Your task to perform on an android device: Open Google Maps Image 0: 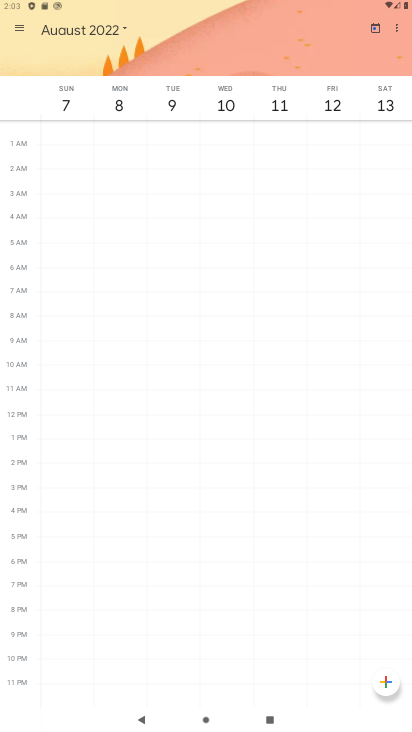
Step 0: press home button
Your task to perform on an android device: Open Google Maps Image 1: 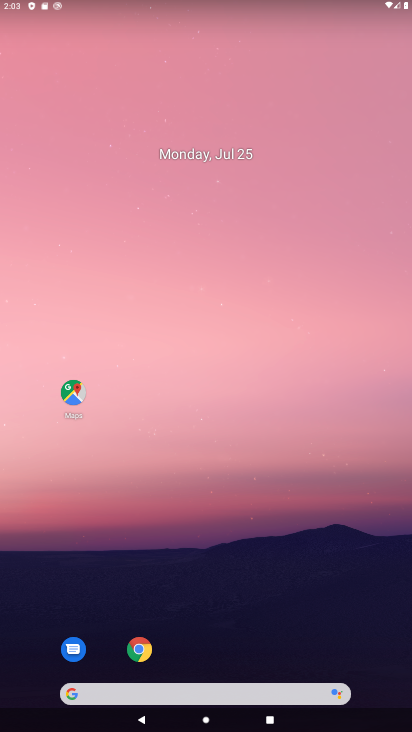
Step 1: click (76, 390)
Your task to perform on an android device: Open Google Maps Image 2: 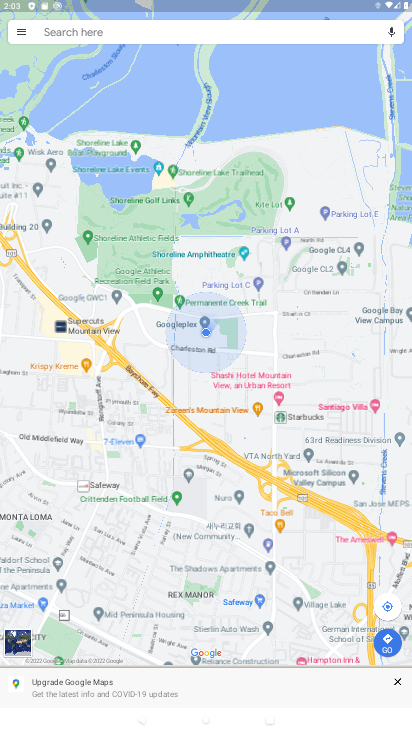
Step 2: task complete